Your task to perform on an android device: Show the shopping cart on target.com. Add "razer deathadder" to the cart on target.com, then select checkout. Image 0: 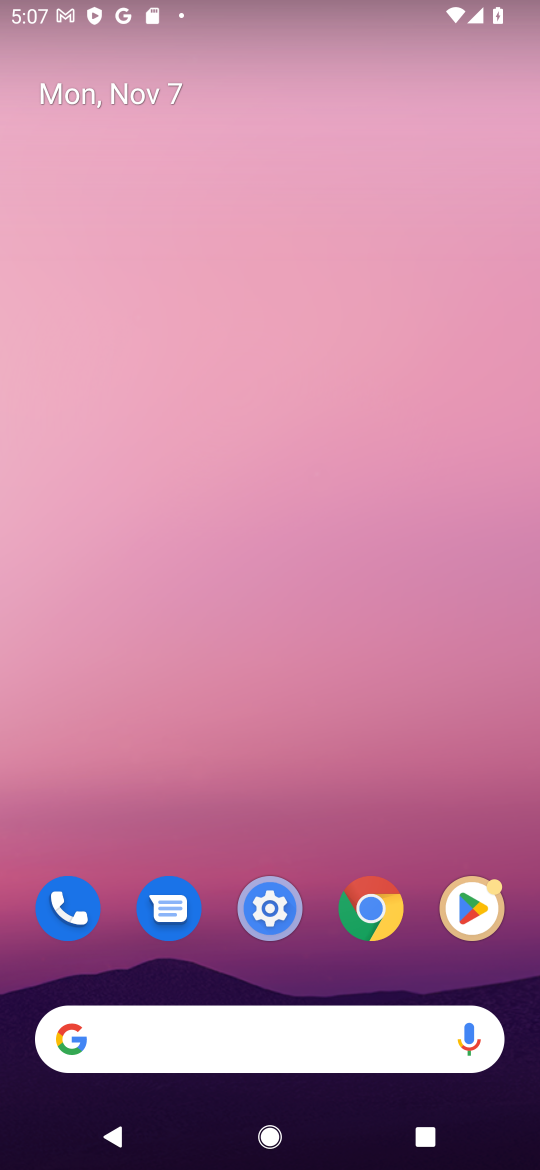
Step 0: click (231, 1033)
Your task to perform on an android device: Show the shopping cart on target.com. Add "razer deathadder" to the cart on target.com, then select checkout. Image 1: 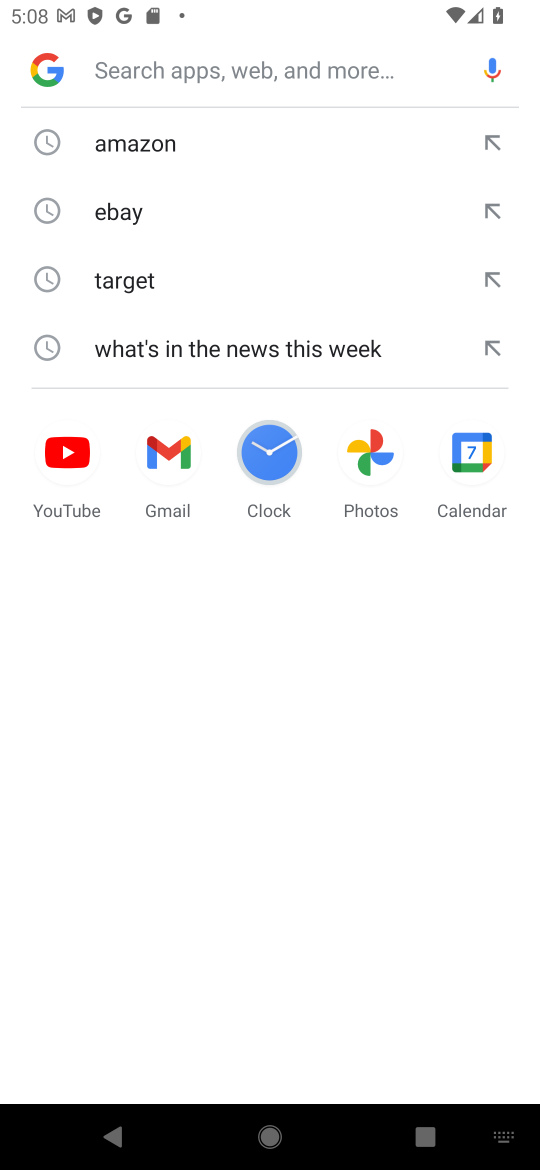
Step 1: click (139, 165)
Your task to perform on an android device: Show the shopping cart on target.com. Add "razer deathadder" to the cart on target.com, then select checkout. Image 2: 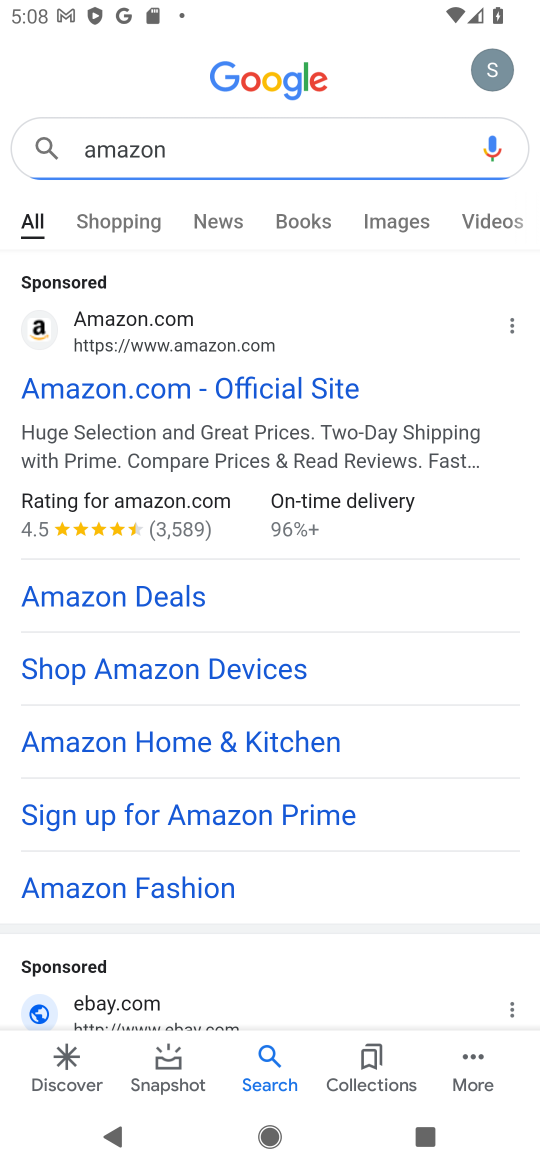
Step 2: task complete